Your task to perform on an android device: Open the stopwatch Image 0: 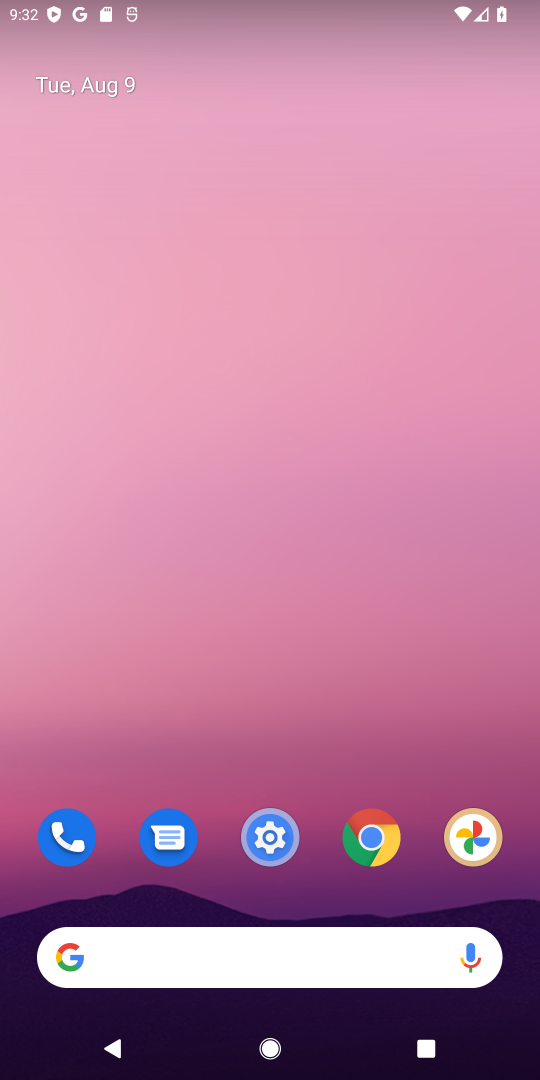
Step 0: drag from (303, 913) to (214, 121)
Your task to perform on an android device: Open the stopwatch Image 1: 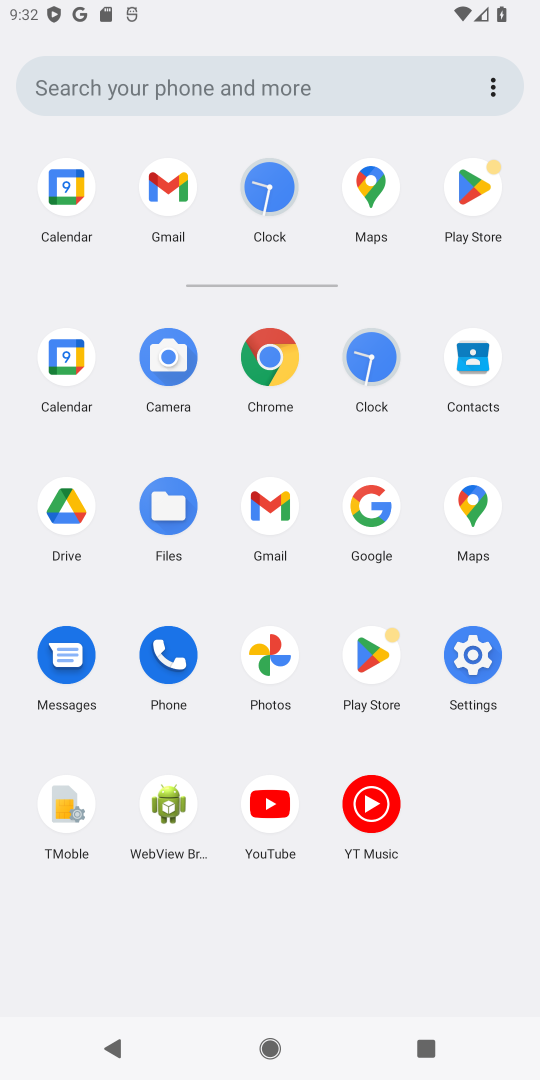
Step 1: click (377, 362)
Your task to perform on an android device: Open the stopwatch Image 2: 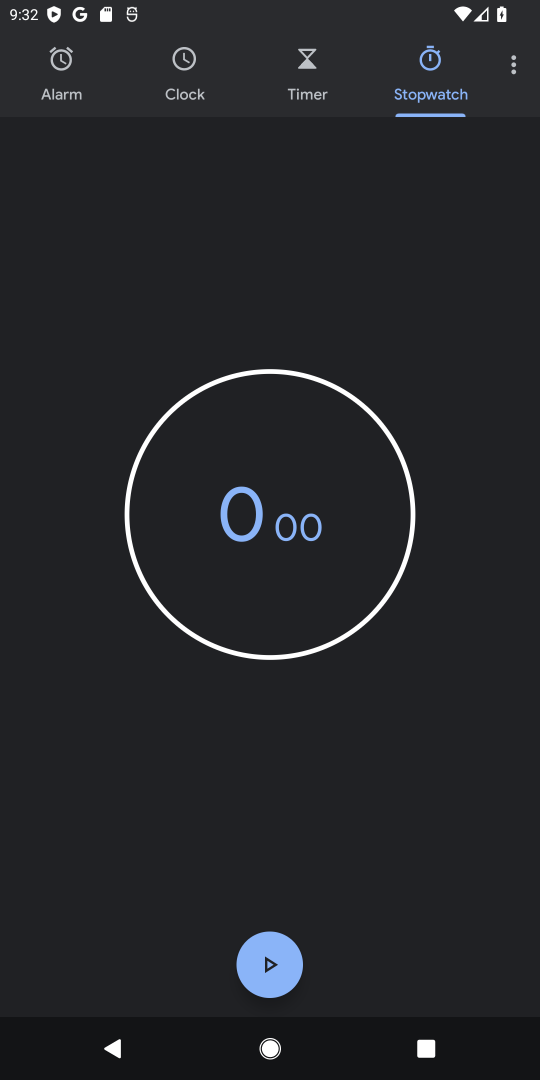
Step 2: task complete